Your task to perform on an android device: empty trash in google photos Image 0: 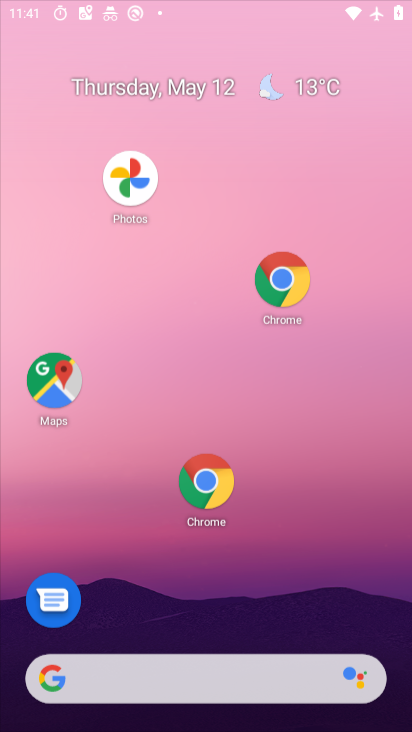
Step 0: drag from (208, 296) to (97, 11)
Your task to perform on an android device: empty trash in google photos Image 1: 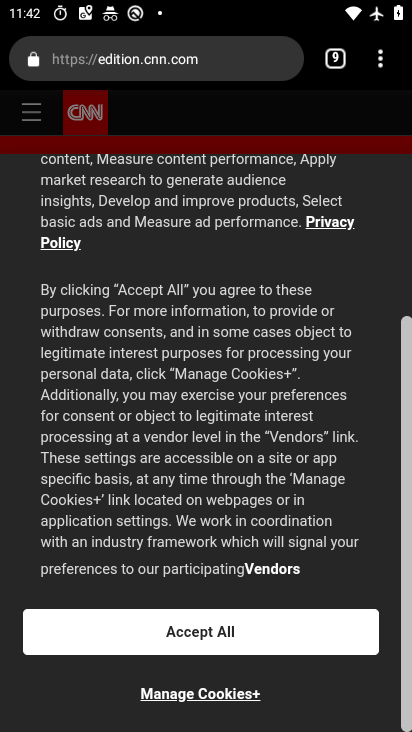
Step 1: press home button
Your task to perform on an android device: empty trash in google photos Image 2: 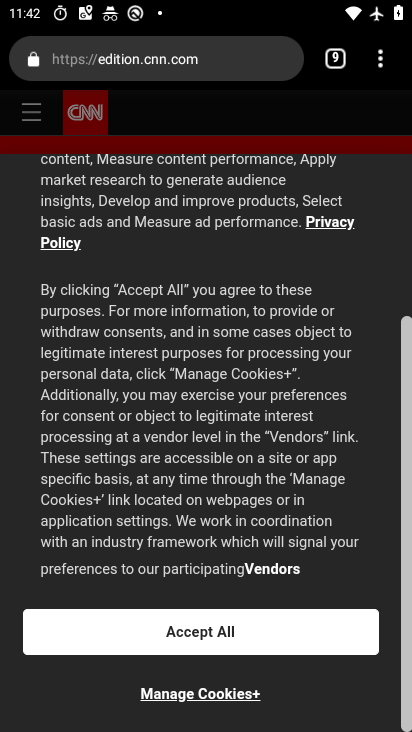
Step 2: press home button
Your task to perform on an android device: empty trash in google photos Image 3: 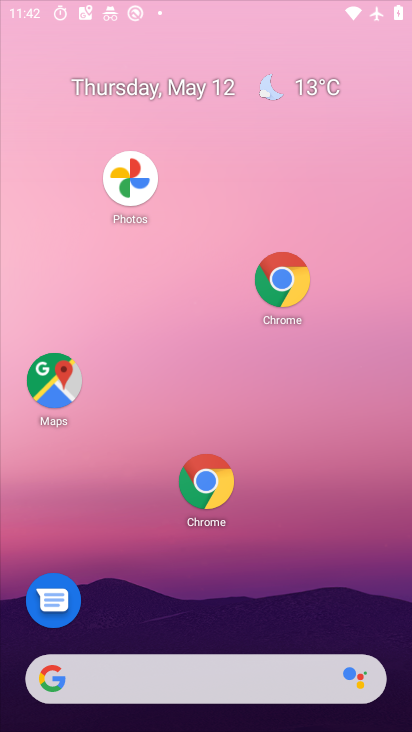
Step 3: press home button
Your task to perform on an android device: empty trash in google photos Image 4: 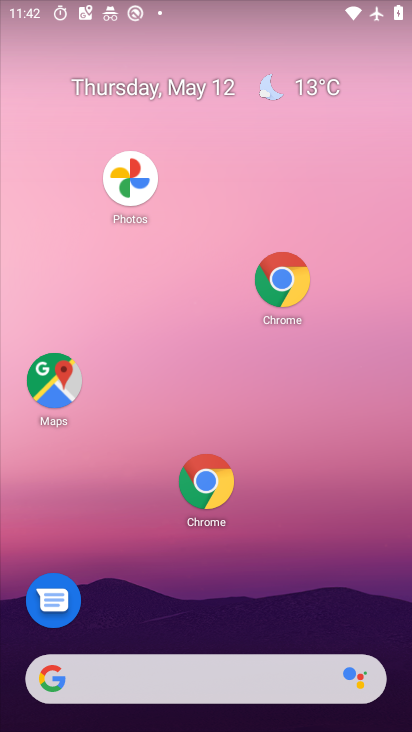
Step 4: drag from (232, 642) to (106, 61)
Your task to perform on an android device: empty trash in google photos Image 5: 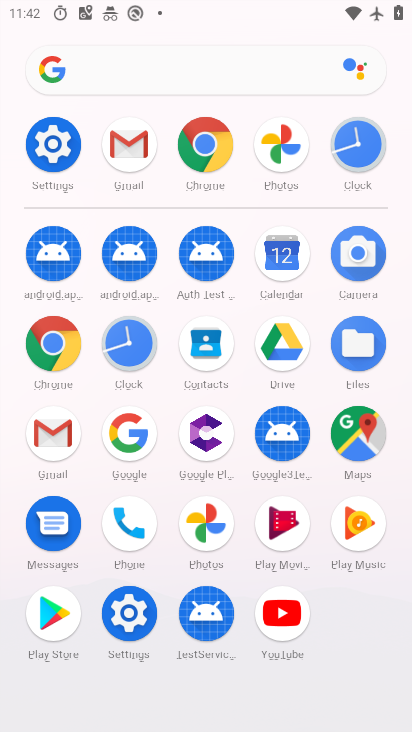
Step 5: click (212, 521)
Your task to perform on an android device: empty trash in google photos Image 6: 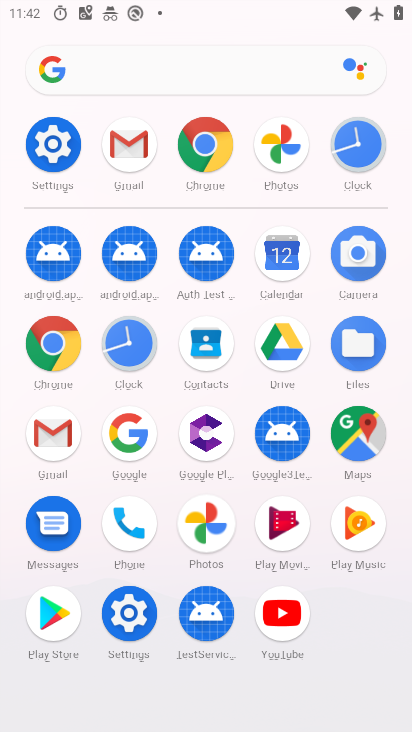
Step 6: click (212, 521)
Your task to perform on an android device: empty trash in google photos Image 7: 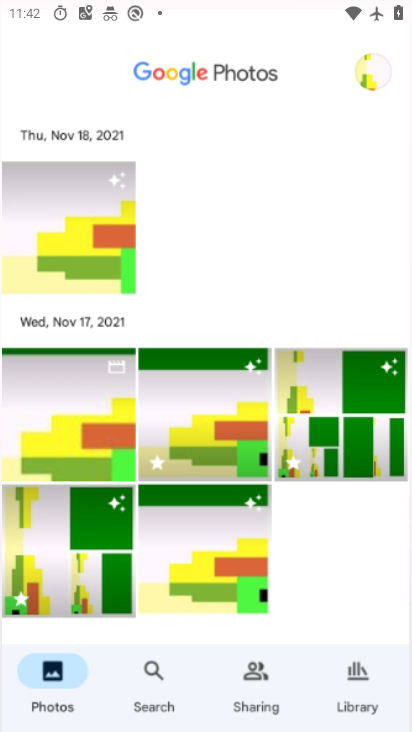
Step 7: click (212, 521)
Your task to perform on an android device: empty trash in google photos Image 8: 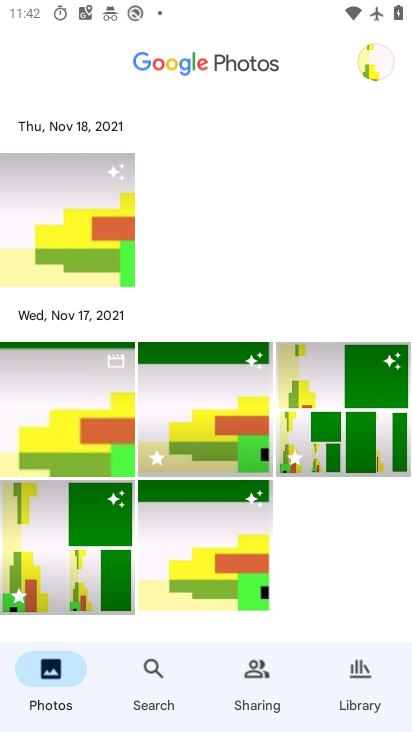
Step 8: click (213, 522)
Your task to perform on an android device: empty trash in google photos Image 9: 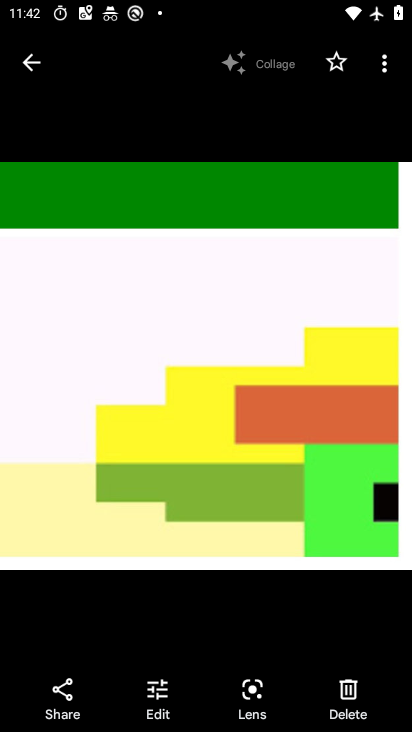
Step 9: click (32, 67)
Your task to perform on an android device: empty trash in google photos Image 10: 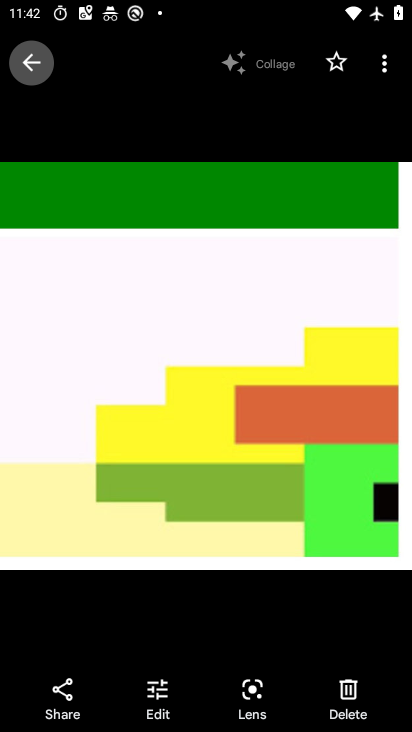
Step 10: click (32, 67)
Your task to perform on an android device: empty trash in google photos Image 11: 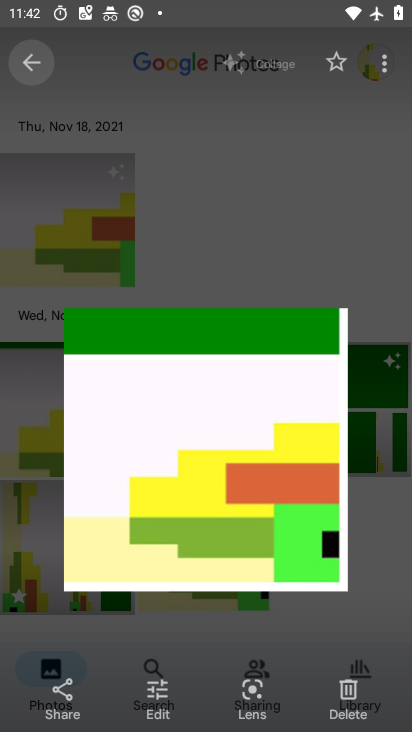
Step 11: click (32, 67)
Your task to perform on an android device: empty trash in google photos Image 12: 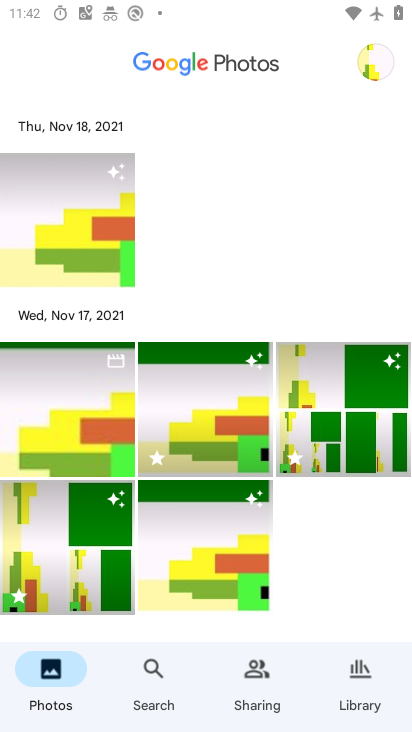
Step 12: click (32, 67)
Your task to perform on an android device: empty trash in google photos Image 13: 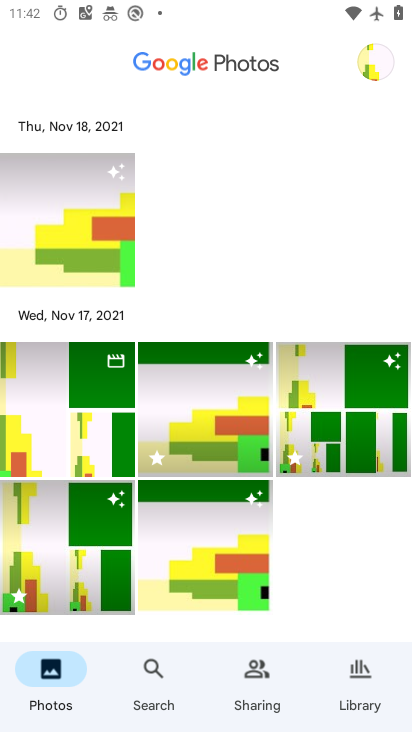
Step 13: task complete